Your task to perform on an android device: Go to network settings Image 0: 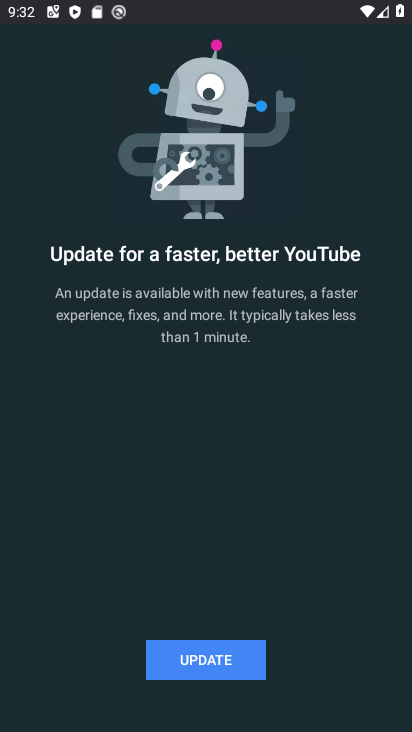
Step 0: press home button
Your task to perform on an android device: Go to network settings Image 1: 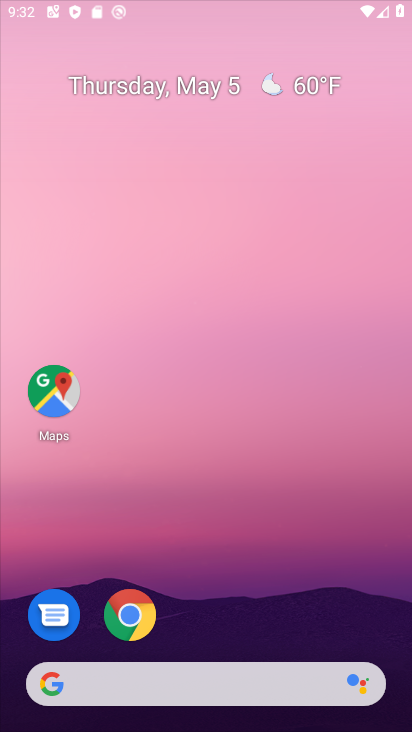
Step 1: drag from (246, 589) to (291, 68)
Your task to perform on an android device: Go to network settings Image 2: 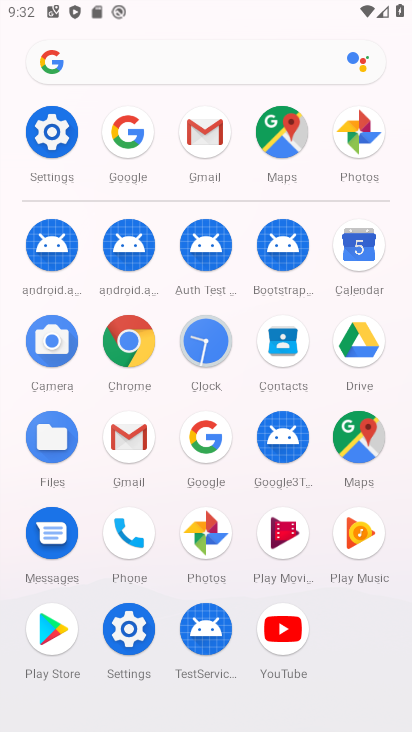
Step 2: click (56, 134)
Your task to perform on an android device: Go to network settings Image 3: 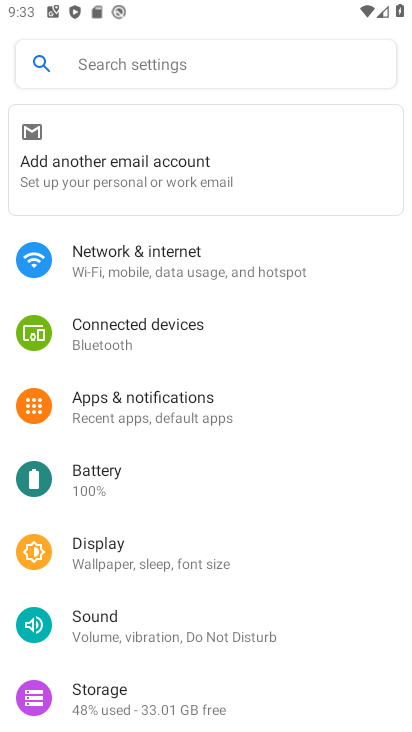
Step 3: drag from (198, 147) to (365, 35)
Your task to perform on an android device: Go to network settings Image 4: 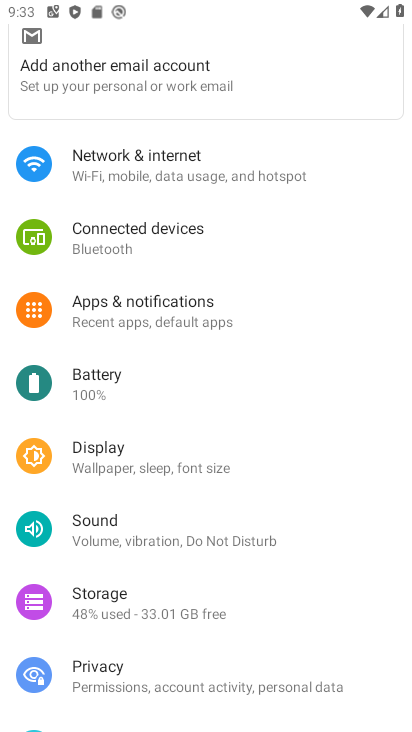
Step 4: click (156, 166)
Your task to perform on an android device: Go to network settings Image 5: 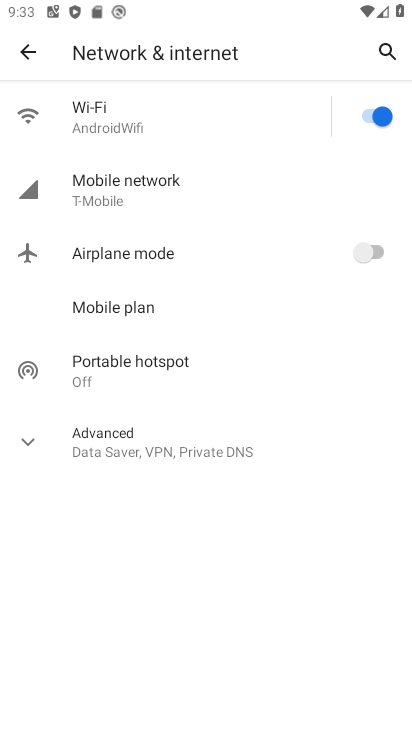
Step 5: click (122, 211)
Your task to perform on an android device: Go to network settings Image 6: 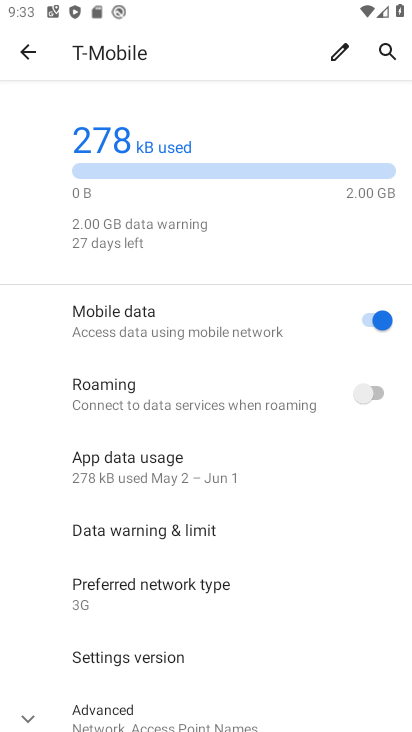
Step 6: task complete